Your task to perform on an android device: turn on improve location accuracy Image 0: 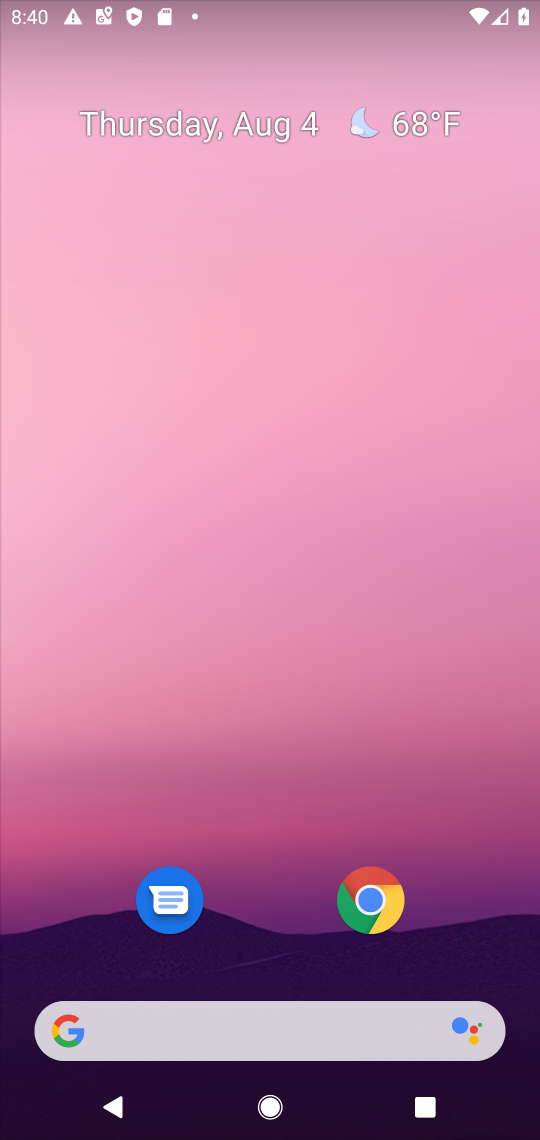
Step 0: drag from (201, 691) to (151, 131)
Your task to perform on an android device: turn on improve location accuracy Image 1: 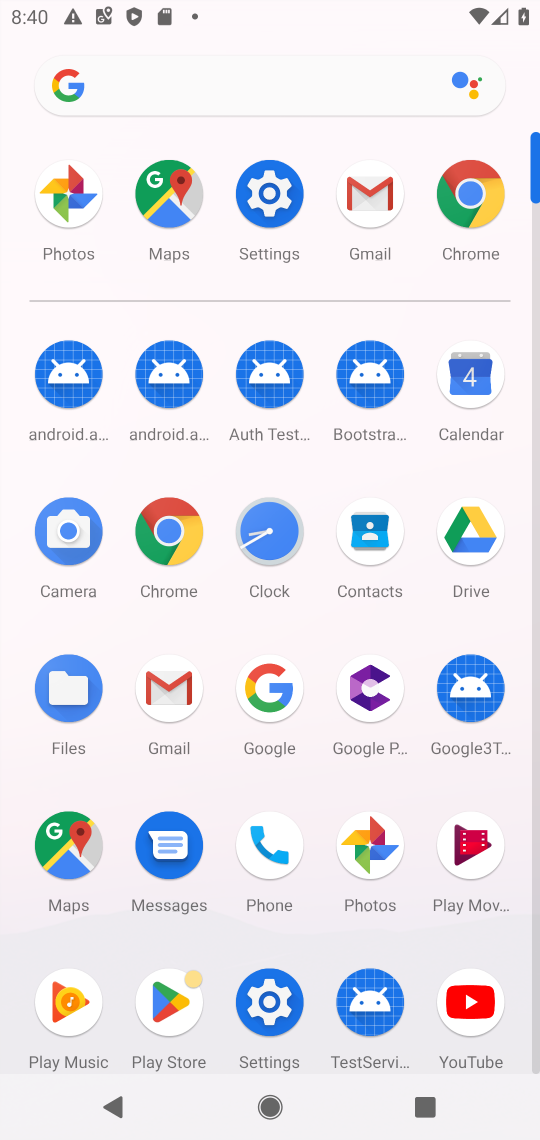
Step 1: click (269, 196)
Your task to perform on an android device: turn on improve location accuracy Image 2: 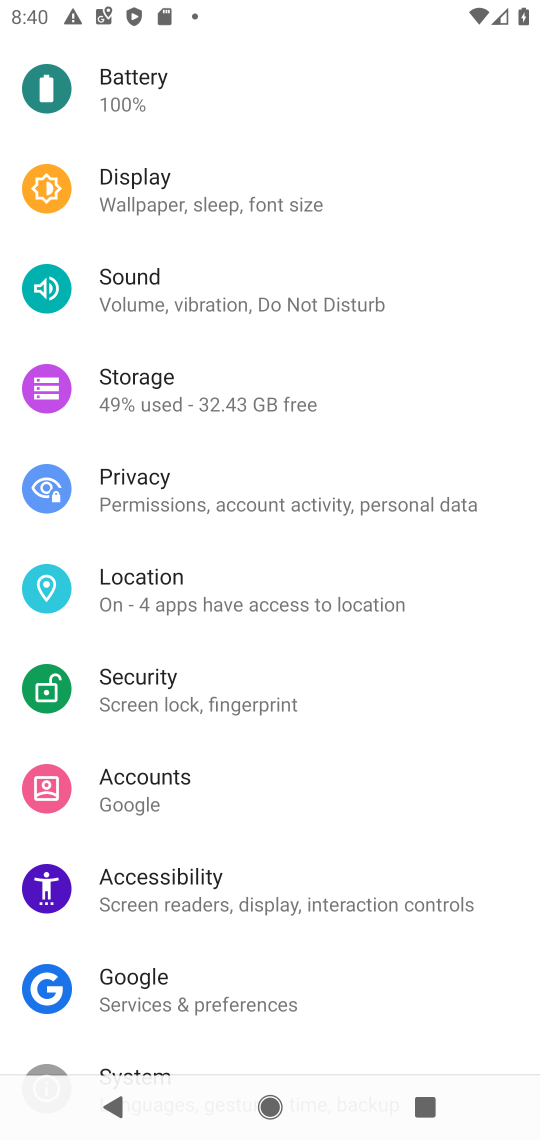
Step 2: click (135, 600)
Your task to perform on an android device: turn on improve location accuracy Image 3: 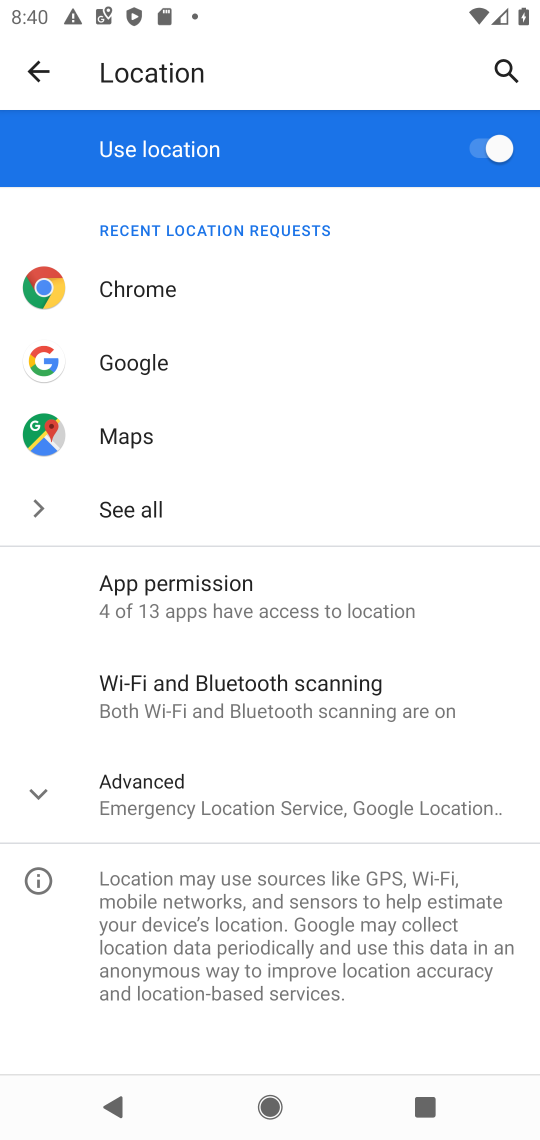
Step 3: click (156, 812)
Your task to perform on an android device: turn on improve location accuracy Image 4: 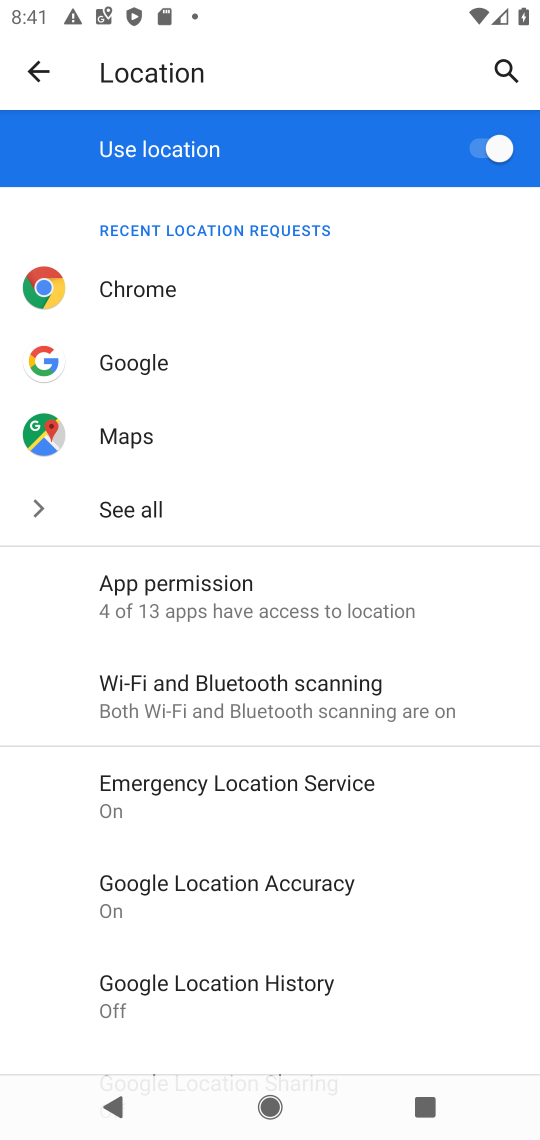
Step 4: click (137, 892)
Your task to perform on an android device: turn on improve location accuracy Image 5: 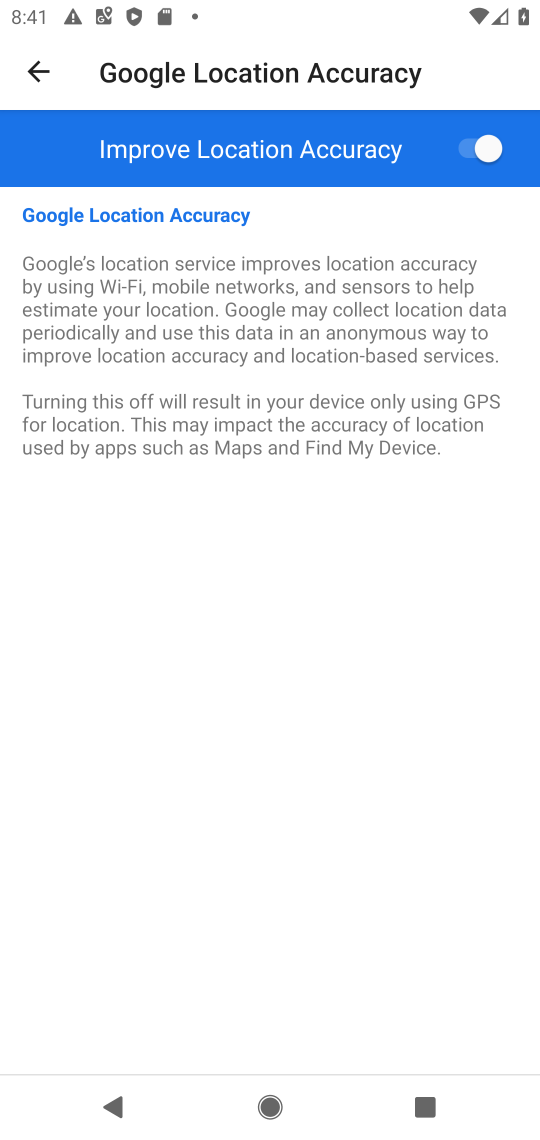
Step 5: task complete